Your task to perform on an android device: Open network settings Image 0: 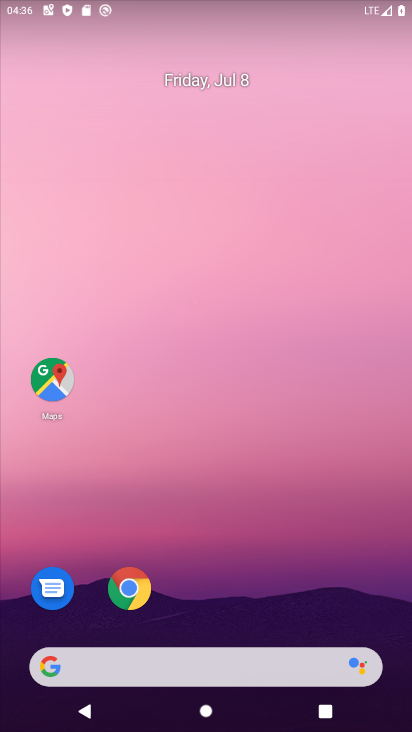
Step 0: drag from (195, 372) to (210, 13)
Your task to perform on an android device: Open network settings Image 1: 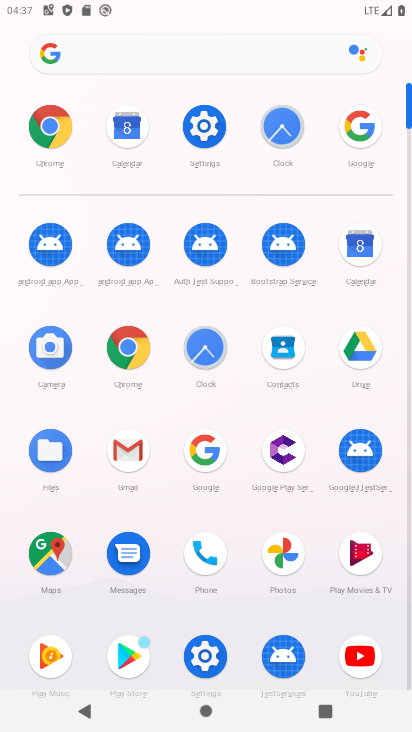
Step 1: click (204, 138)
Your task to perform on an android device: Open network settings Image 2: 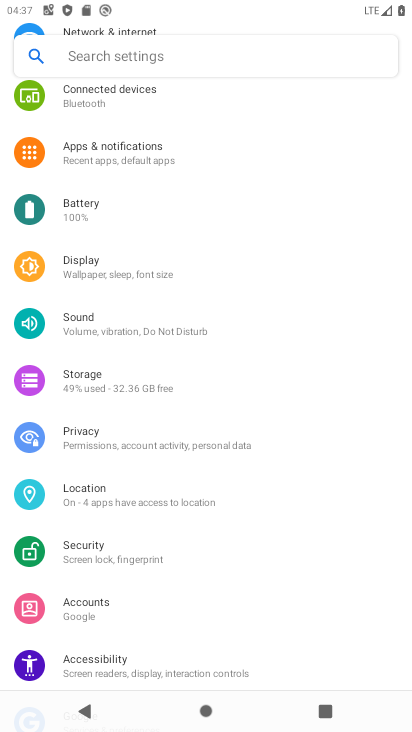
Step 2: drag from (177, 251) to (190, 484)
Your task to perform on an android device: Open network settings Image 3: 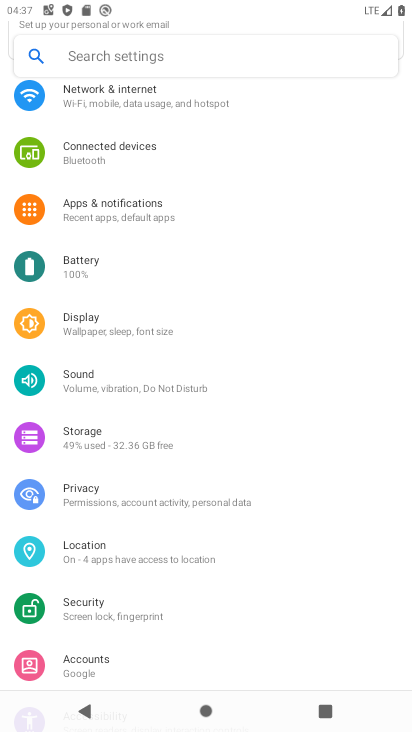
Step 3: click (140, 97)
Your task to perform on an android device: Open network settings Image 4: 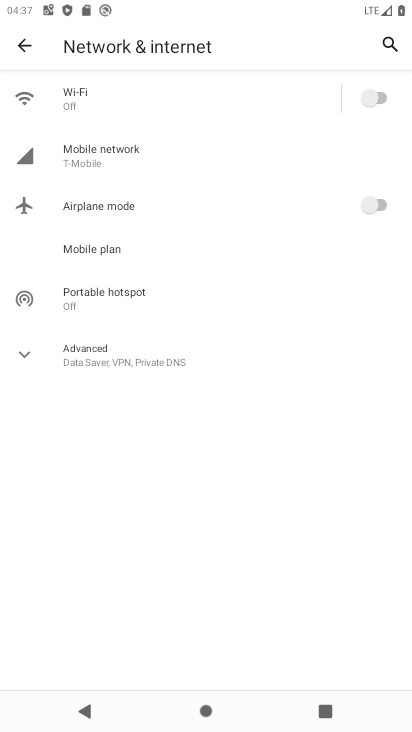
Step 4: task complete